Your task to perform on an android device: turn off translation in the chrome app Image 0: 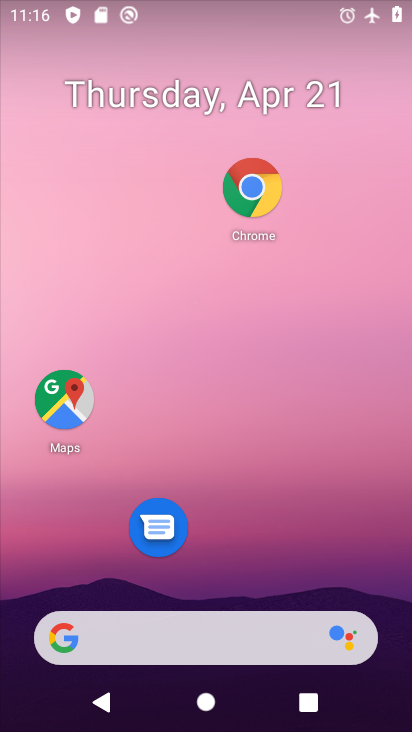
Step 0: drag from (242, 540) to (241, 89)
Your task to perform on an android device: turn off translation in the chrome app Image 1: 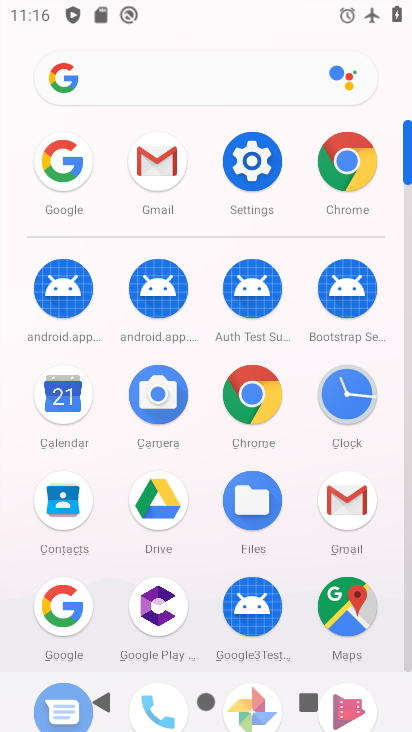
Step 1: click (365, 174)
Your task to perform on an android device: turn off translation in the chrome app Image 2: 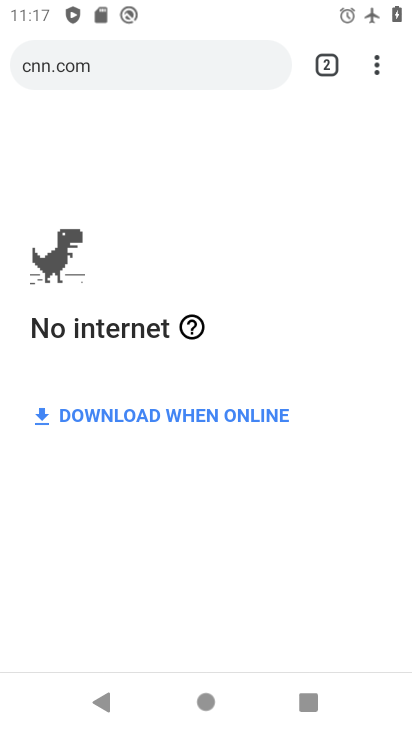
Step 2: click (380, 74)
Your task to perform on an android device: turn off translation in the chrome app Image 3: 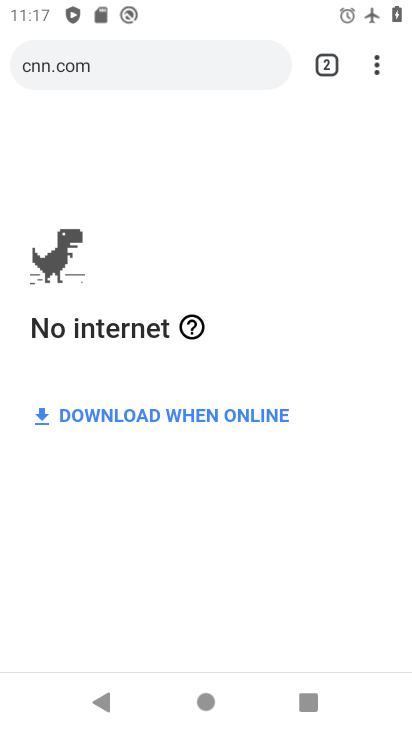
Step 3: click (375, 65)
Your task to perform on an android device: turn off translation in the chrome app Image 4: 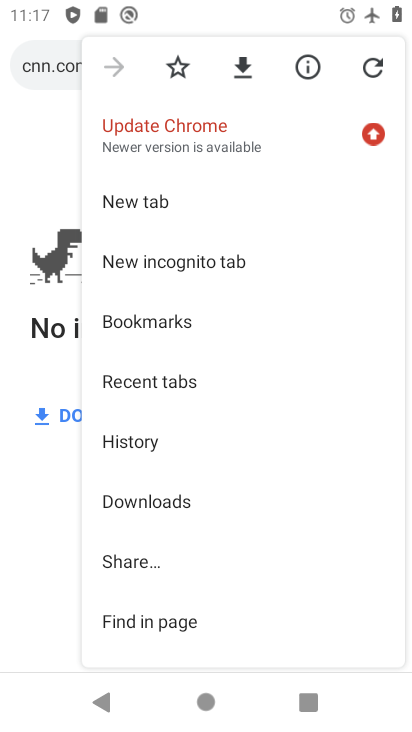
Step 4: task complete